Your task to perform on an android device: open sync settings in chrome Image 0: 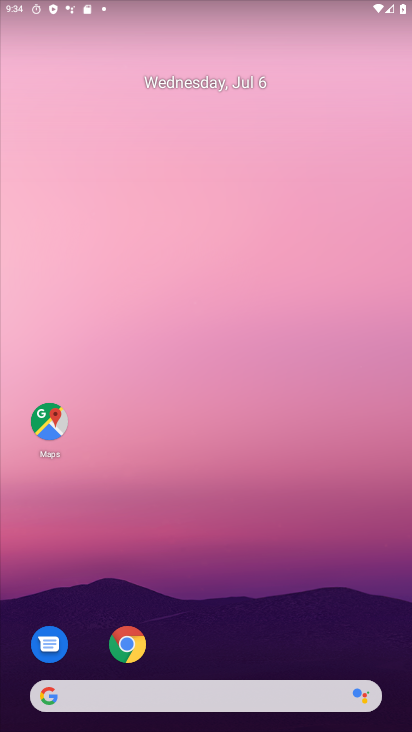
Step 0: drag from (317, 702) to (234, 191)
Your task to perform on an android device: open sync settings in chrome Image 1: 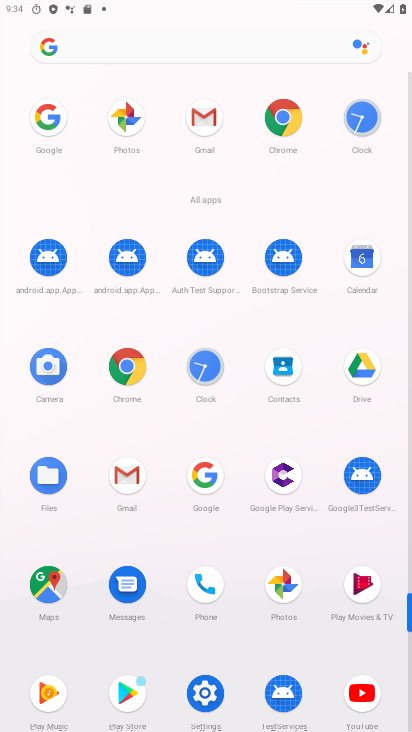
Step 1: click (129, 369)
Your task to perform on an android device: open sync settings in chrome Image 2: 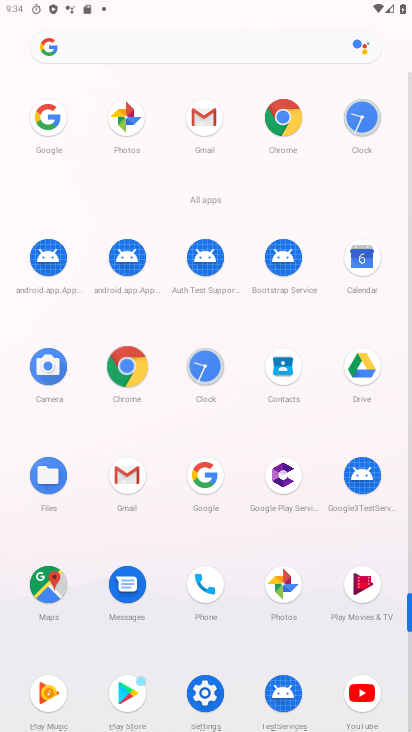
Step 2: click (134, 370)
Your task to perform on an android device: open sync settings in chrome Image 3: 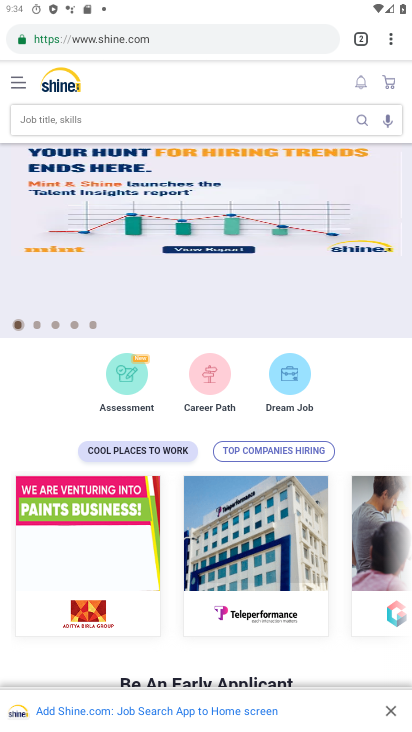
Step 3: click (394, 40)
Your task to perform on an android device: open sync settings in chrome Image 4: 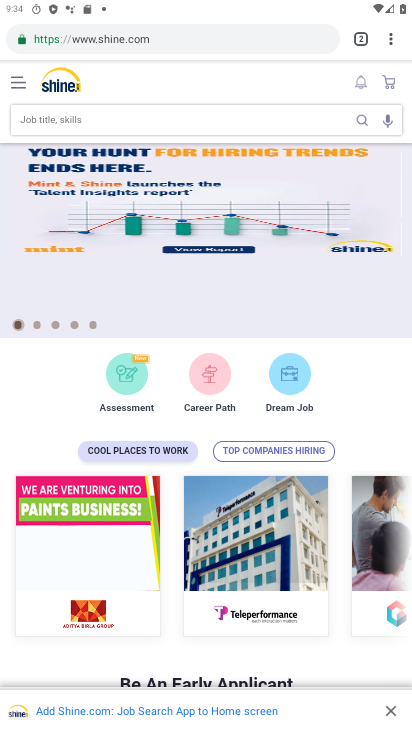
Step 4: click (390, 41)
Your task to perform on an android device: open sync settings in chrome Image 5: 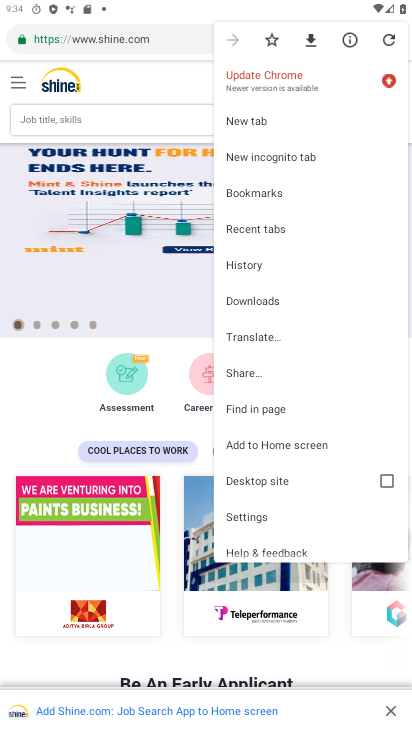
Step 5: click (251, 508)
Your task to perform on an android device: open sync settings in chrome Image 6: 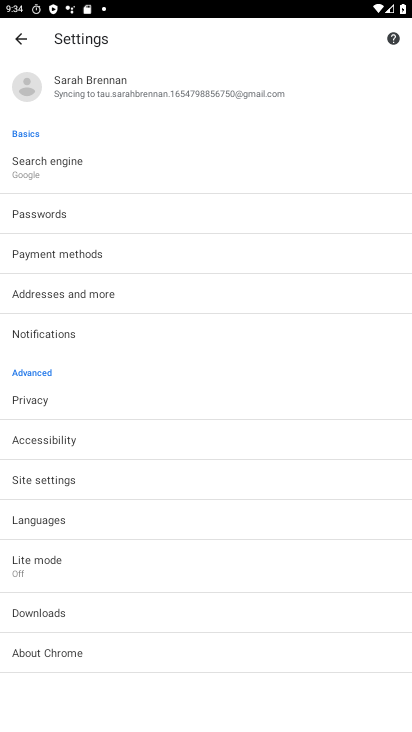
Step 6: drag from (137, 619) to (98, 397)
Your task to perform on an android device: open sync settings in chrome Image 7: 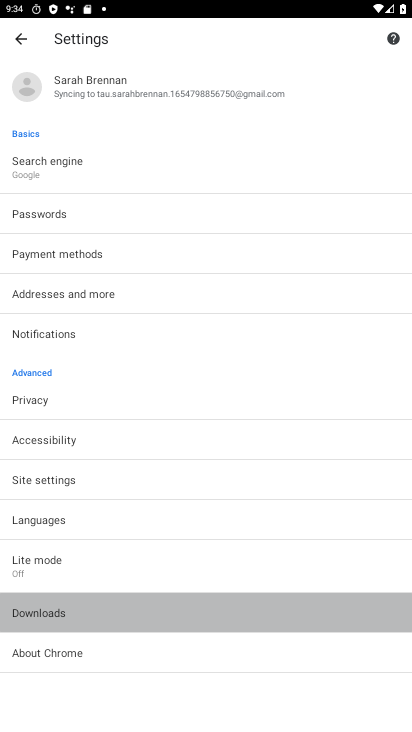
Step 7: drag from (162, 582) to (182, 356)
Your task to perform on an android device: open sync settings in chrome Image 8: 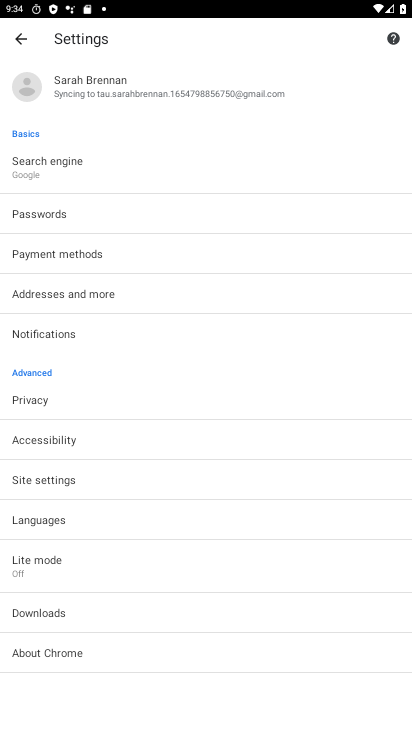
Step 8: click (60, 472)
Your task to perform on an android device: open sync settings in chrome Image 9: 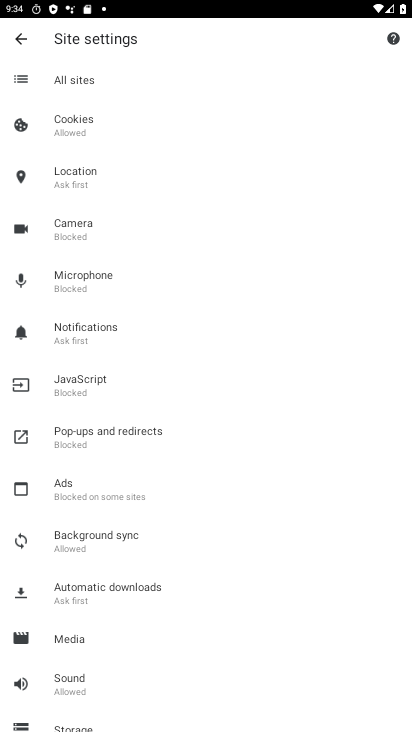
Step 9: click (94, 542)
Your task to perform on an android device: open sync settings in chrome Image 10: 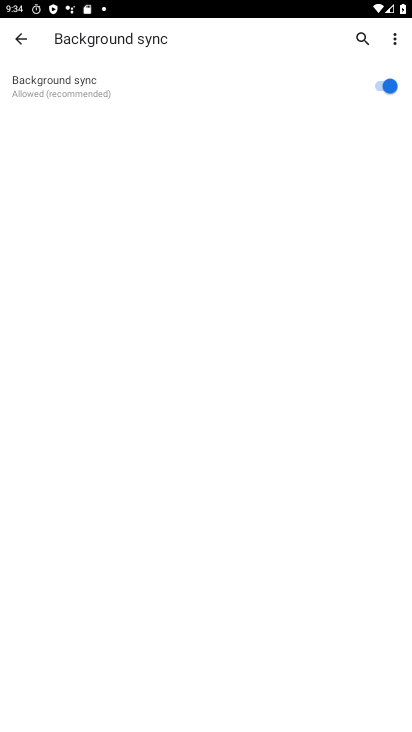
Step 10: task complete